Your task to perform on an android device: What is the recent news? Image 0: 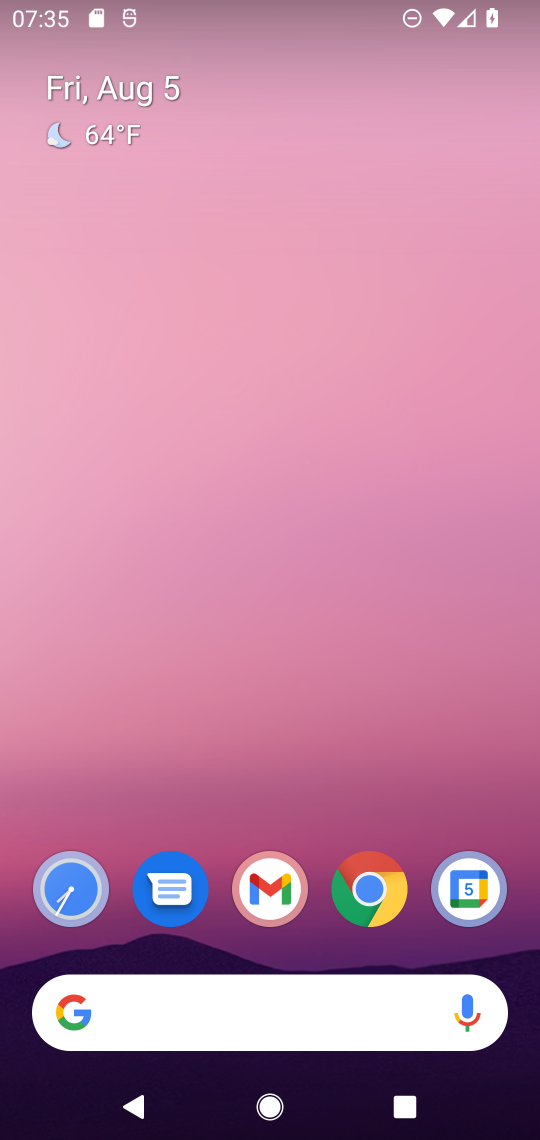
Step 0: drag from (241, 966) to (231, 327)
Your task to perform on an android device: What is the recent news? Image 1: 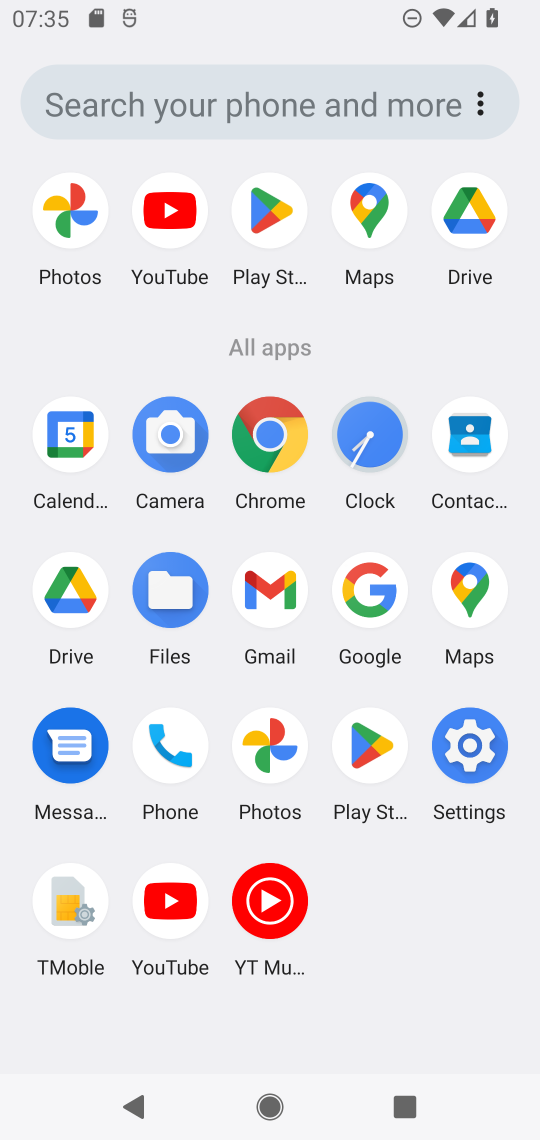
Step 1: click (383, 580)
Your task to perform on an android device: What is the recent news? Image 2: 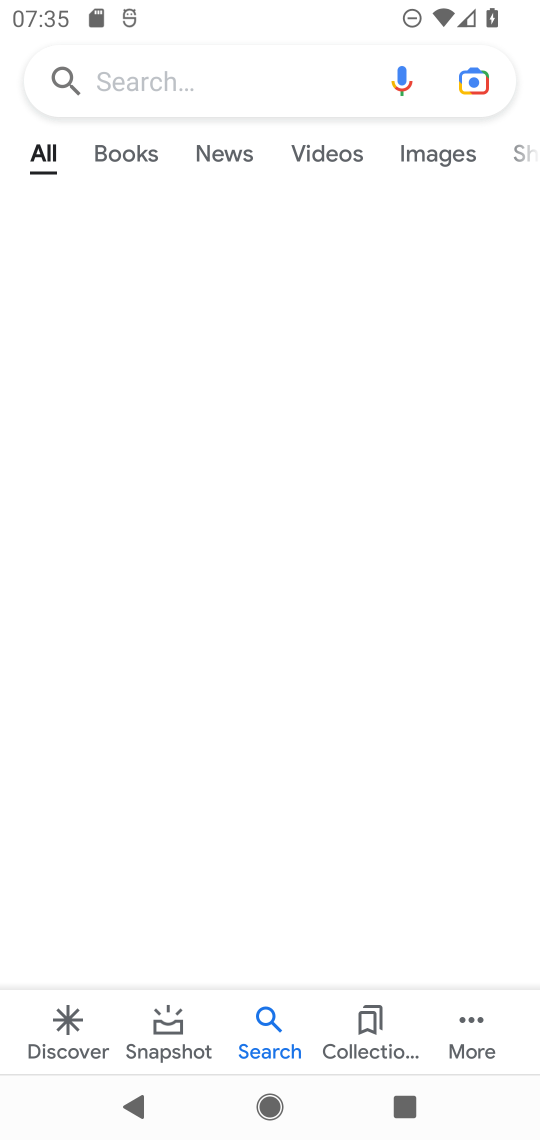
Step 2: click (167, 89)
Your task to perform on an android device: What is the recent news? Image 3: 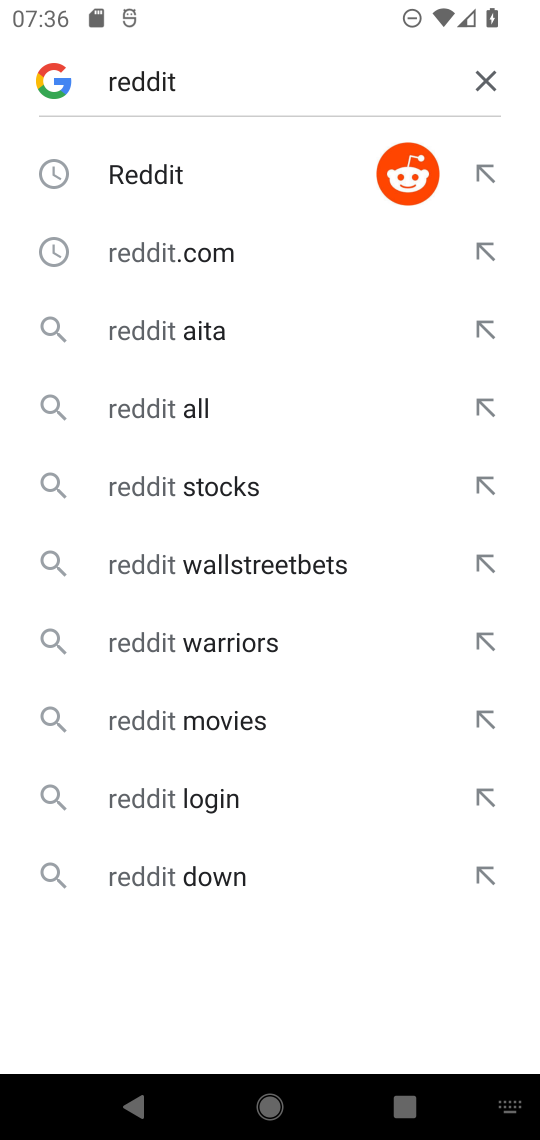
Step 3: click (489, 77)
Your task to perform on an android device: What is the recent news? Image 4: 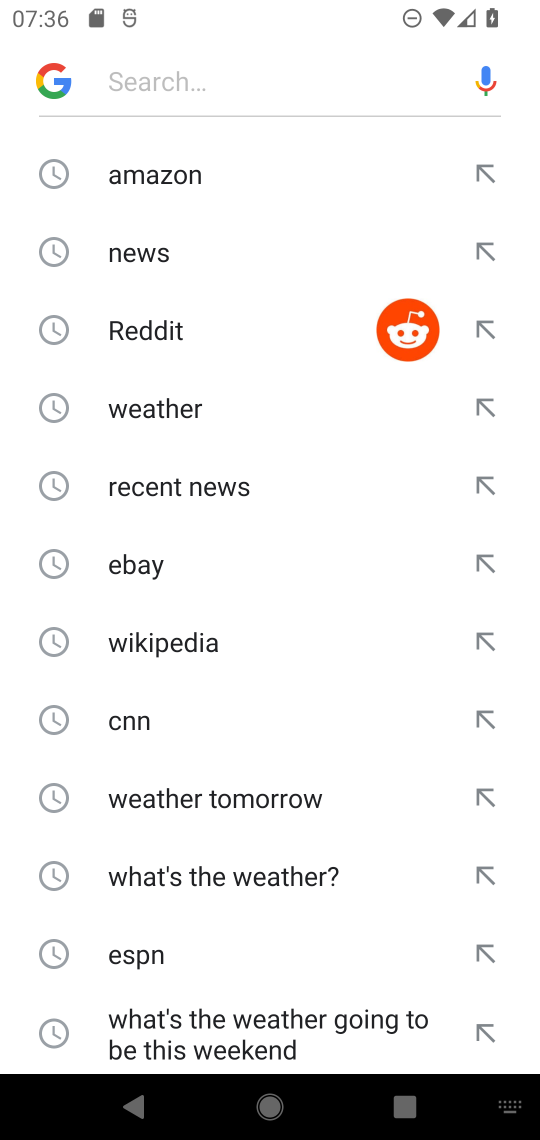
Step 4: click (155, 481)
Your task to perform on an android device: What is the recent news? Image 5: 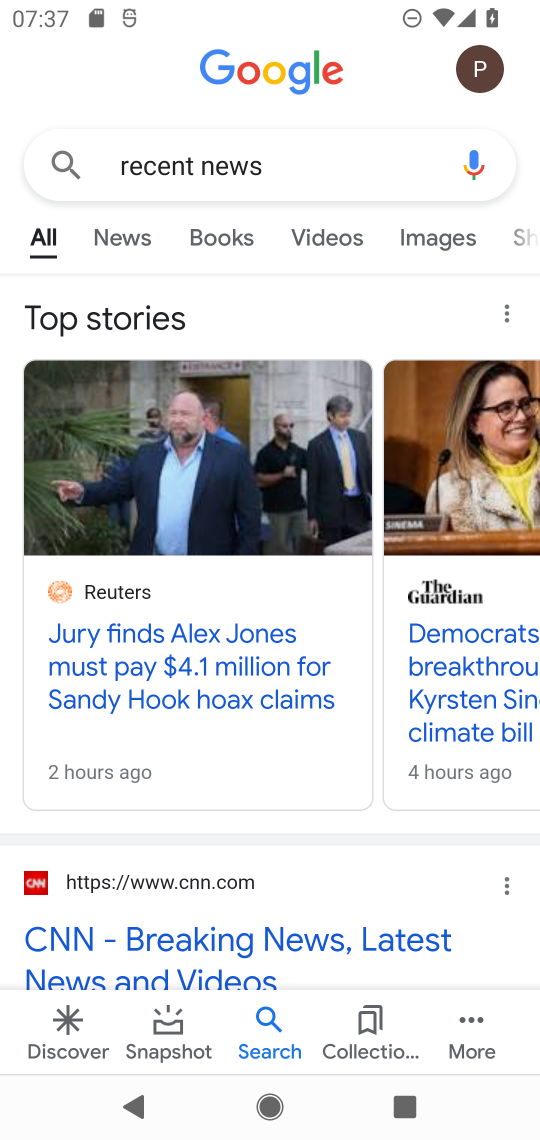
Step 5: task complete